Your task to perform on an android device: turn on the 24-hour format for clock Image 0: 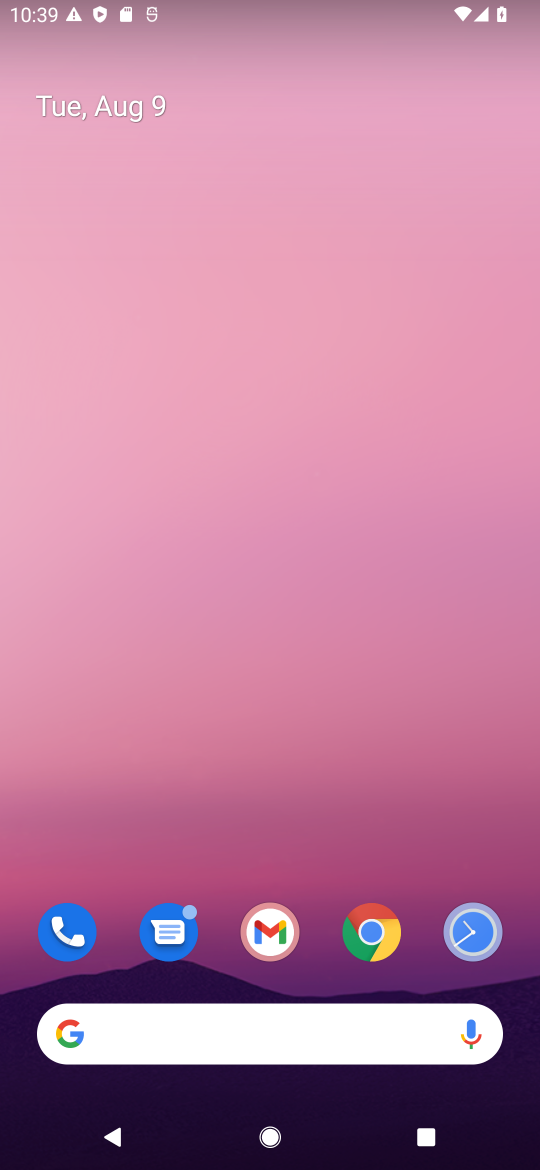
Step 0: drag from (249, 890) to (255, 0)
Your task to perform on an android device: turn on the 24-hour format for clock Image 1: 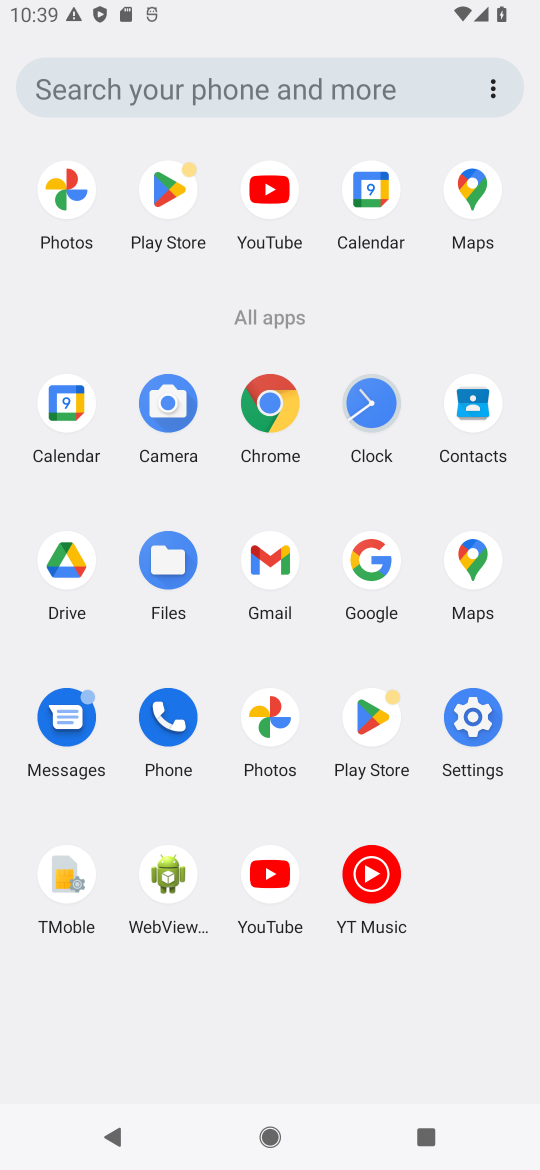
Step 1: click (378, 430)
Your task to perform on an android device: turn on the 24-hour format for clock Image 2: 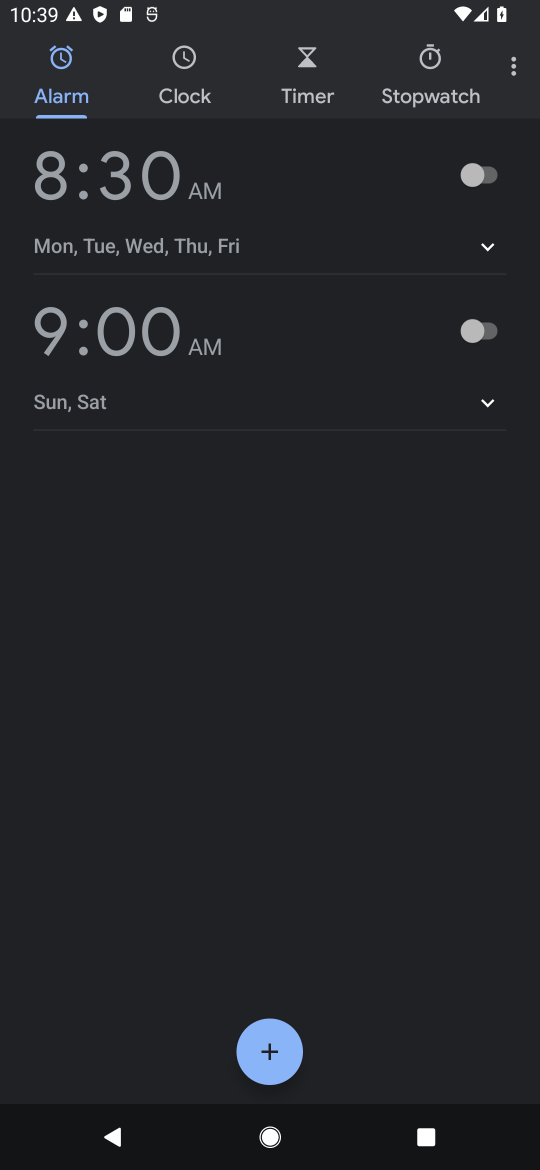
Step 2: click (511, 64)
Your task to perform on an android device: turn on the 24-hour format for clock Image 3: 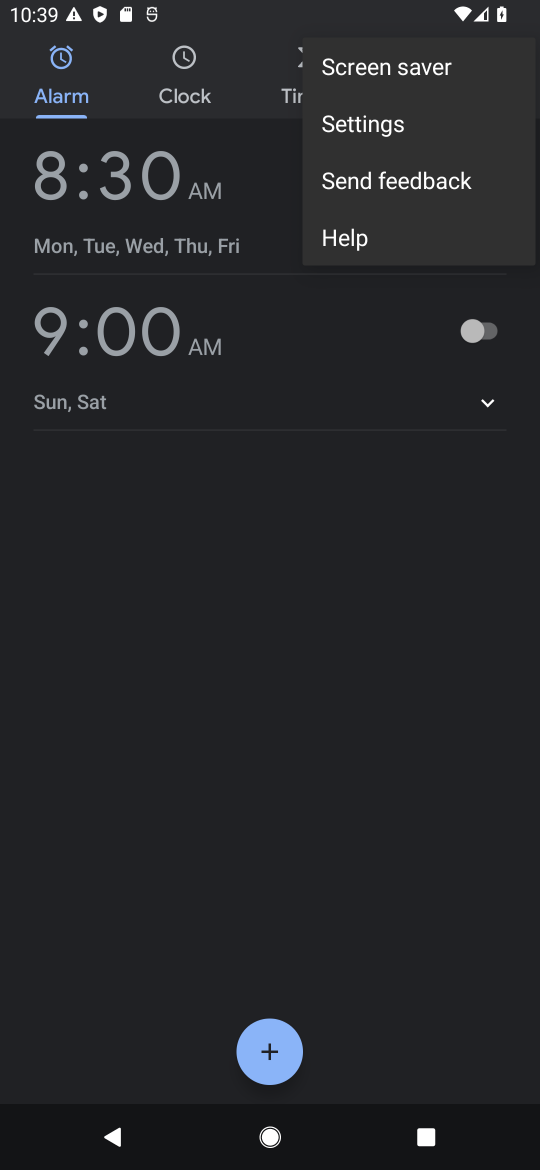
Step 3: press home button
Your task to perform on an android device: turn on the 24-hour format for clock Image 4: 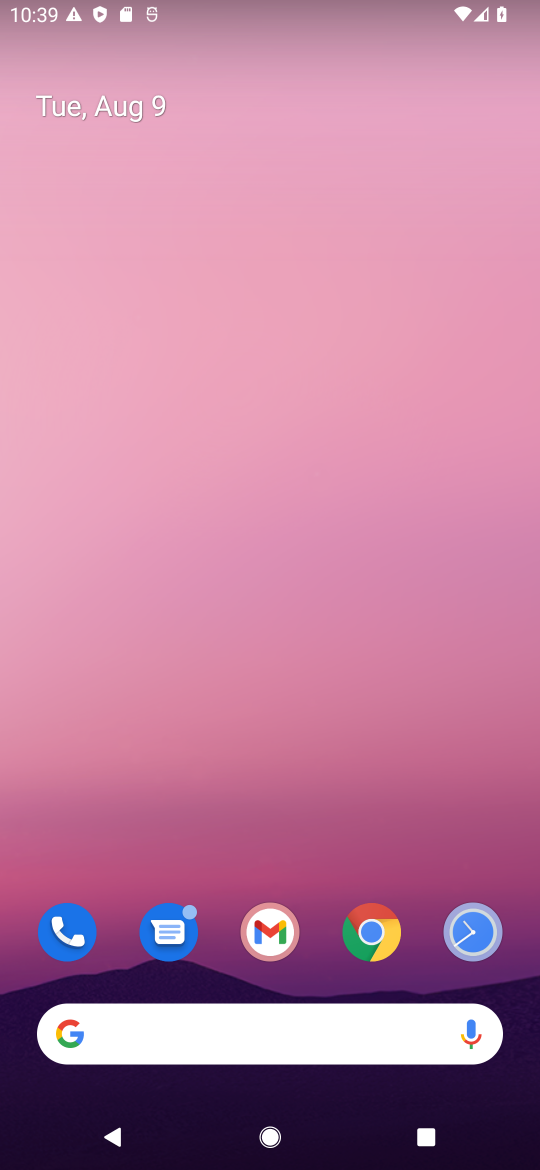
Step 4: drag from (298, 965) to (289, 17)
Your task to perform on an android device: turn on the 24-hour format for clock Image 5: 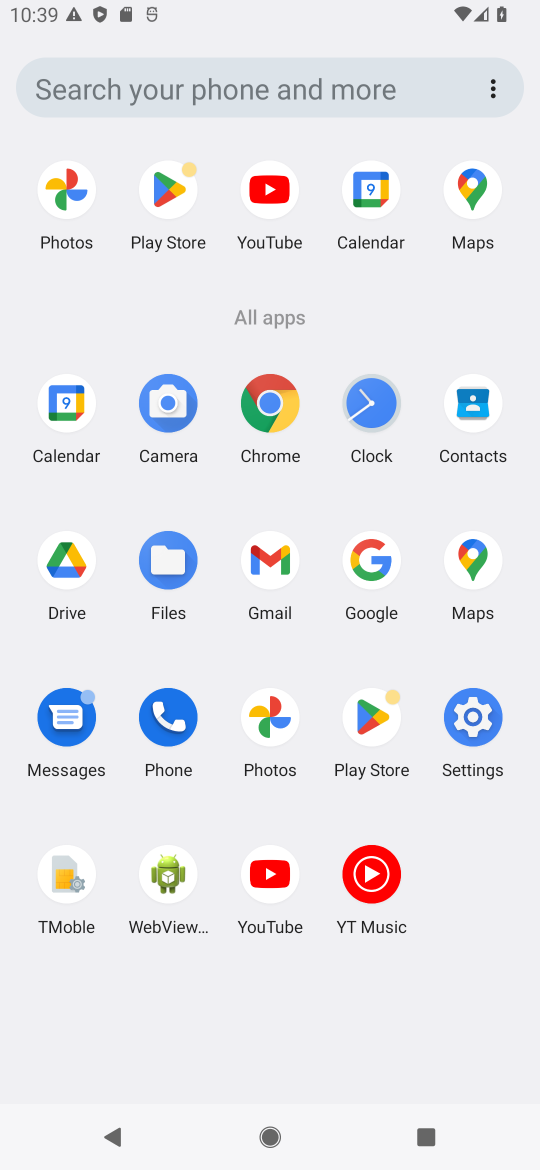
Step 5: click (494, 718)
Your task to perform on an android device: turn on the 24-hour format for clock Image 6: 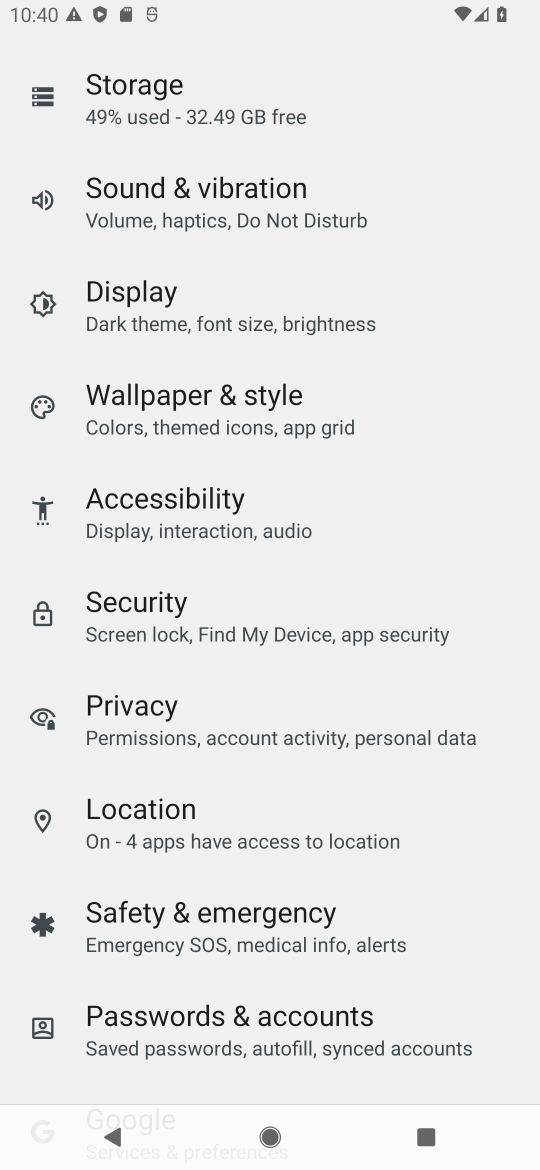
Step 6: drag from (244, 584) to (244, 646)
Your task to perform on an android device: turn on the 24-hour format for clock Image 7: 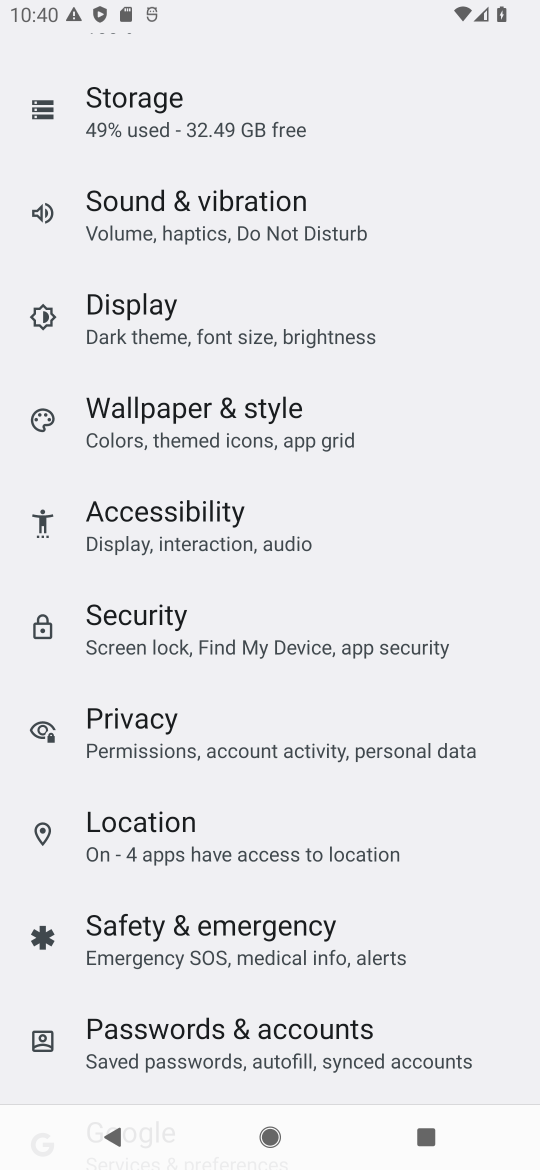
Step 7: drag from (298, 858) to (325, 216)
Your task to perform on an android device: turn on the 24-hour format for clock Image 8: 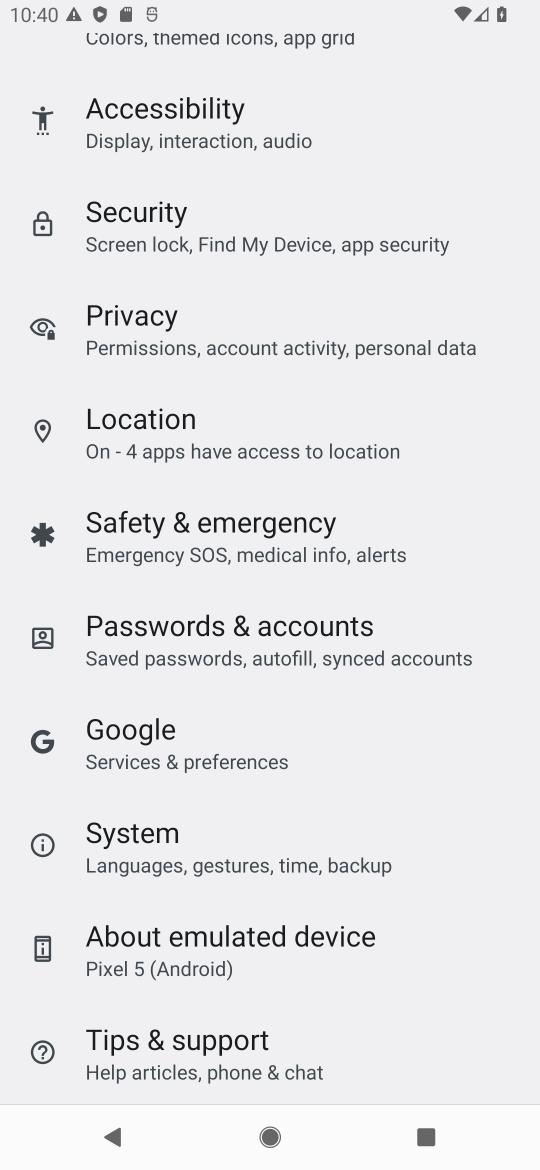
Step 8: click (236, 845)
Your task to perform on an android device: turn on the 24-hour format for clock Image 9: 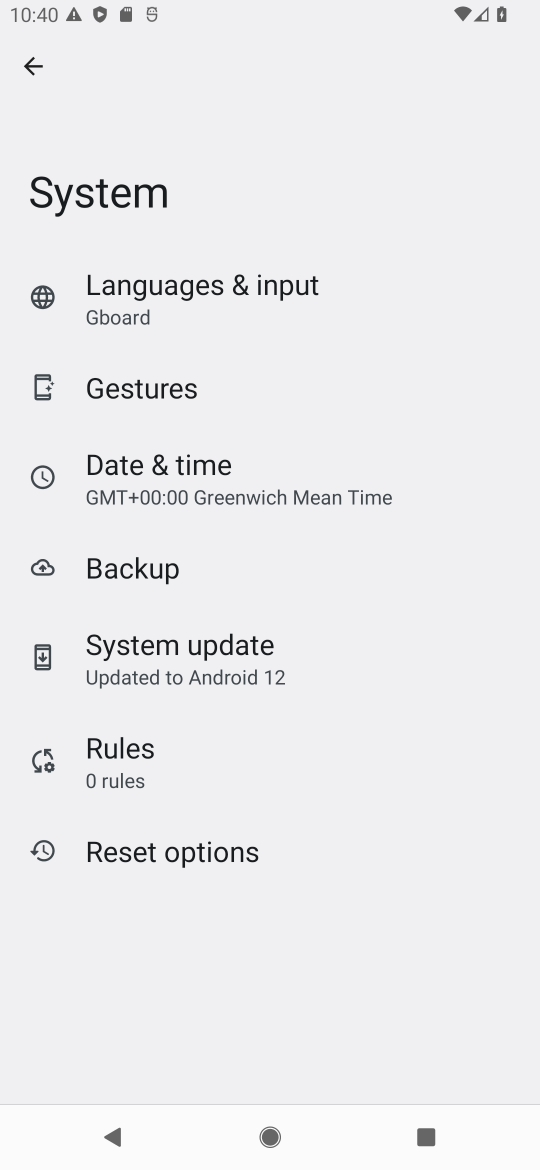
Step 9: click (185, 487)
Your task to perform on an android device: turn on the 24-hour format for clock Image 10: 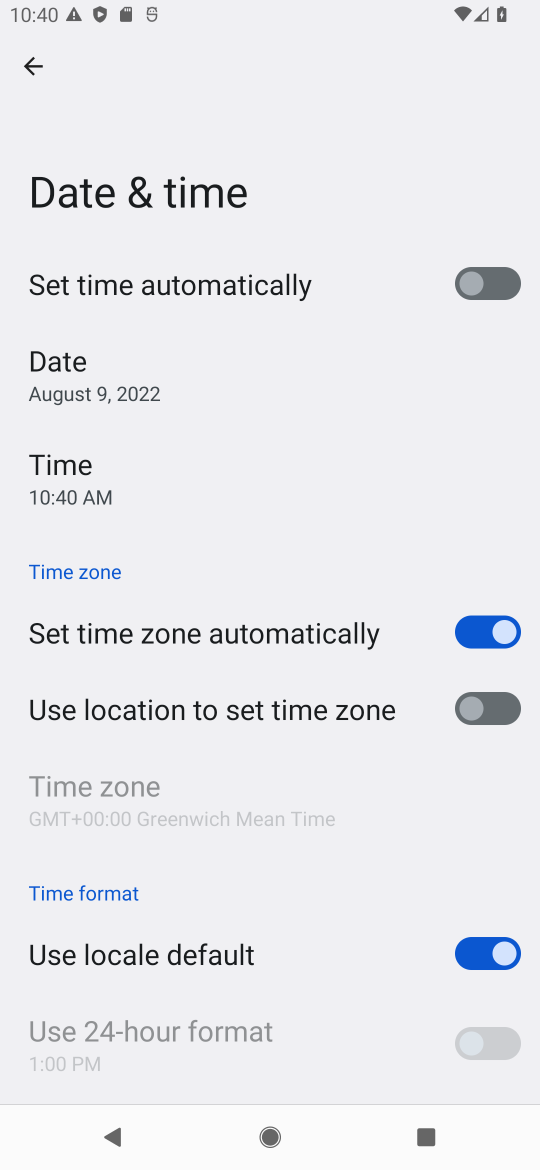
Step 10: click (457, 941)
Your task to perform on an android device: turn on the 24-hour format for clock Image 11: 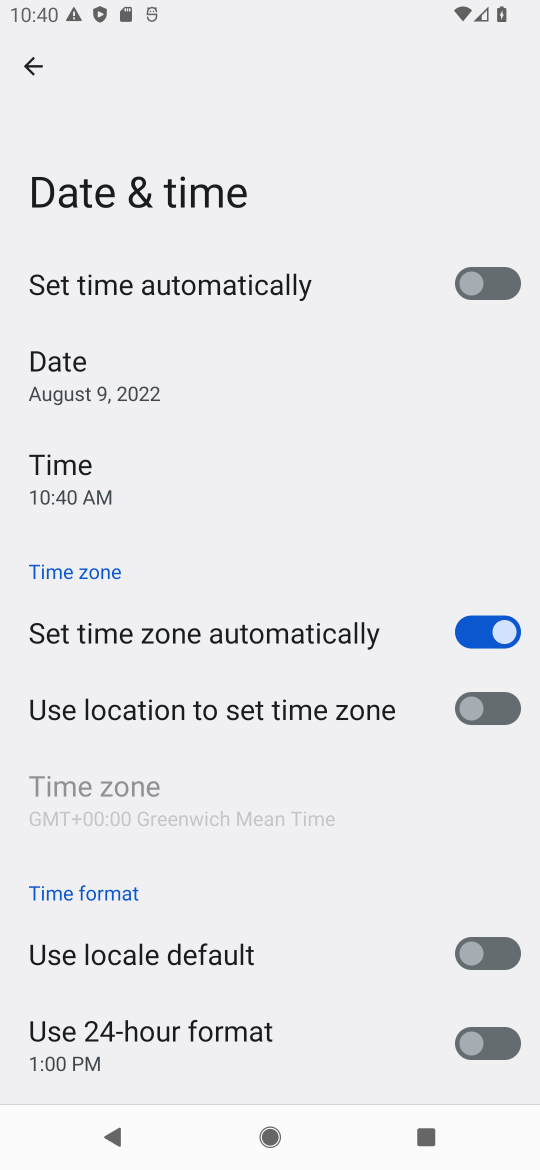
Step 11: click (504, 1031)
Your task to perform on an android device: turn on the 24-hour format for clock Image 12: 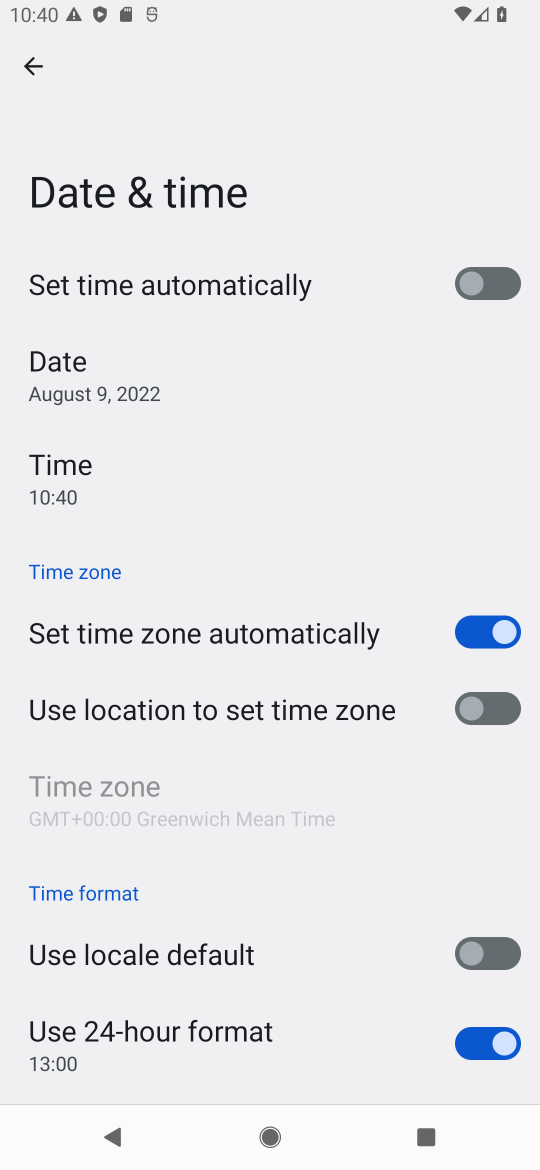
Step 12: task complete